Your task to perform on an android device: choose inbox layout in the gmail app Image 0: 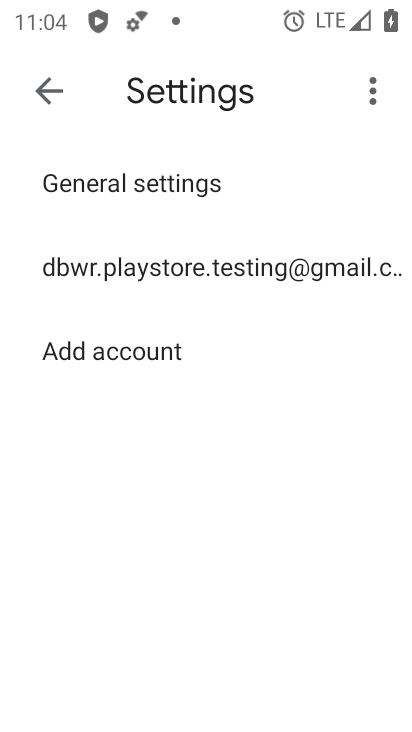
Step 0: click (48, 94)
Your task to perform on an android device: choose inbox layout in the gmail app Image 1: 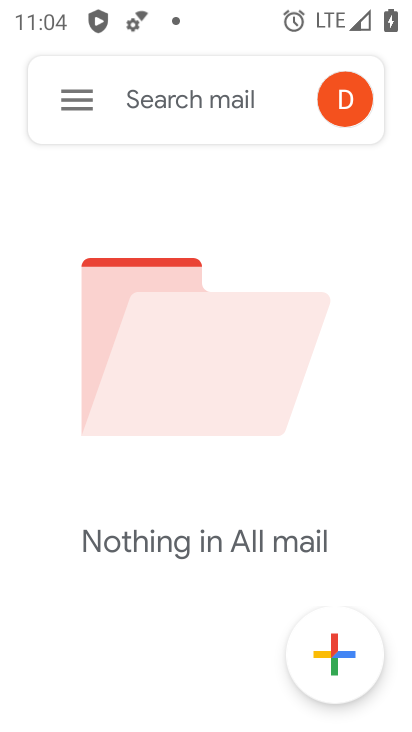
Step 1: press back button
Your task to perform on an android device: choose inbox layout in the gmail app Image 2: 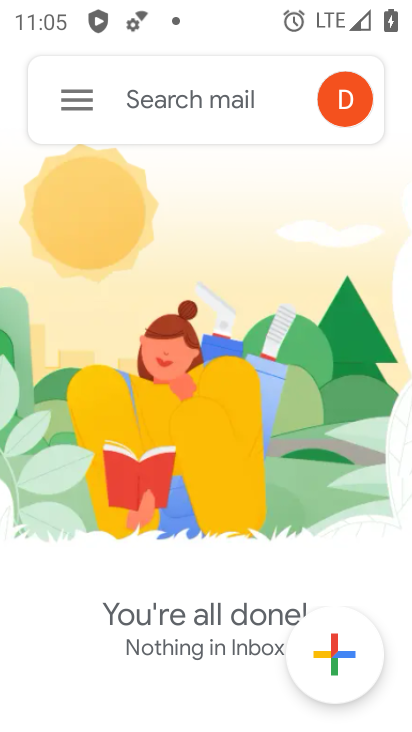
Step 2: click (86, 99)
Your task to perform on an android device: choose inbox layout in the gmail app Image 3: 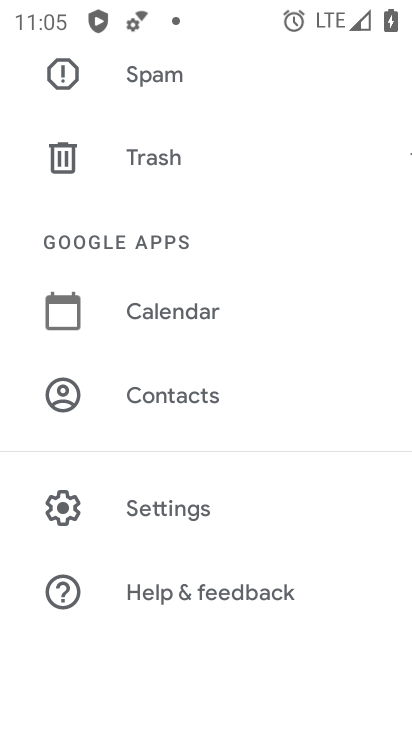
Step 3: click (168, 506)
Your task to perform on an android device: choose inbox layout in the gmail app Image 4: 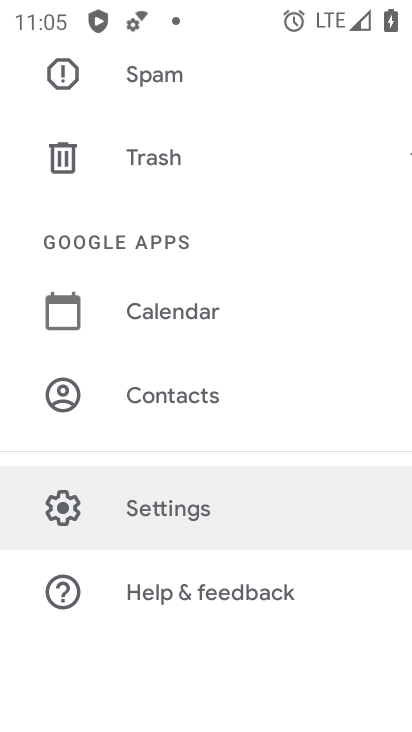
Step 4: click (168, 506)
Your task to perform on an android device: choose inbox layout in the gmail app Image 5: 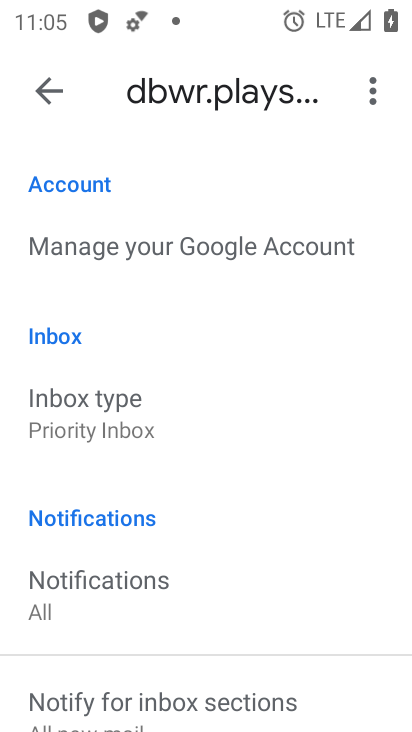
Step 5: drag from (146, 523) to (152, 204)
Your task to perform on an android device: choose inbox layout in the gmail app Image 6: 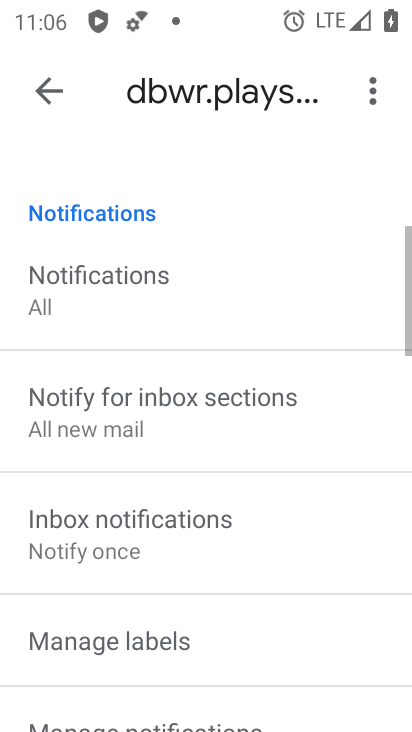
Step 6: drag from (152, 451) to (180, 182)
Your task to perform on an android device: choose inbox layout in the gmail app Image 7: 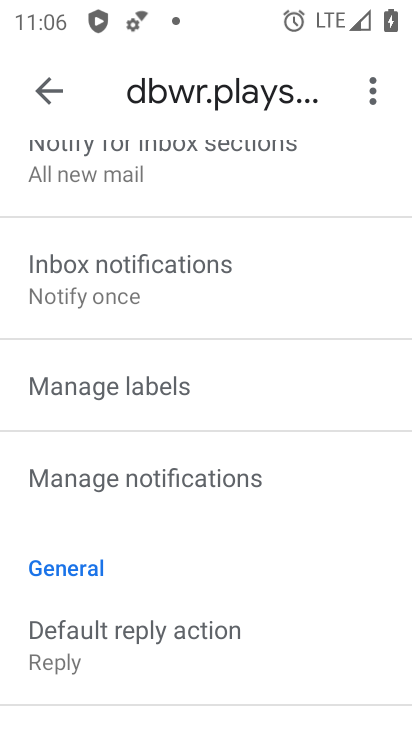
Step 7: drag from (132, 306) to (140, 553)
Your task to perform on an android device: choose inbox layout in the gmail app Image 8: 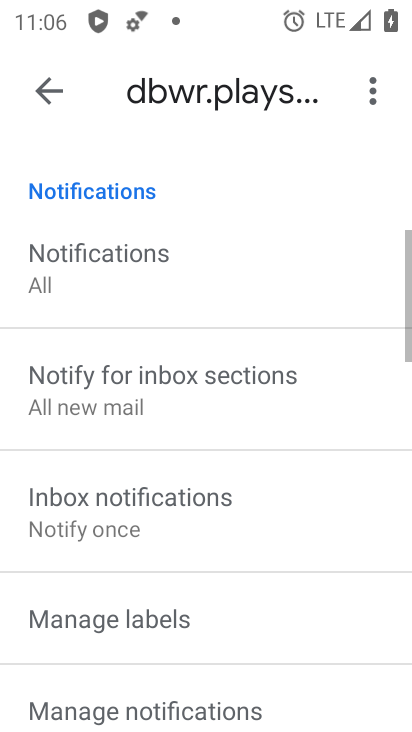
Step 8: drag from (135, 281) to (177, 564)
Your task to perform on an android device: choose inbox layout in the gmail app Image 9: 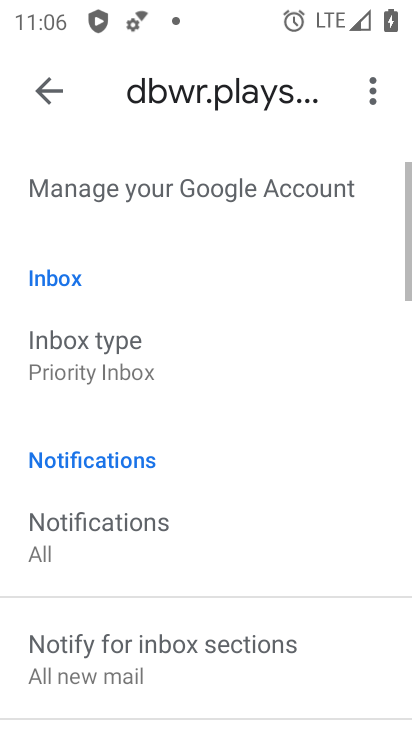
Step 9: drag from (179, 290) to (214, 503)
Your task to perform on an android device: choose inbox layout in the gmail app Image 10: 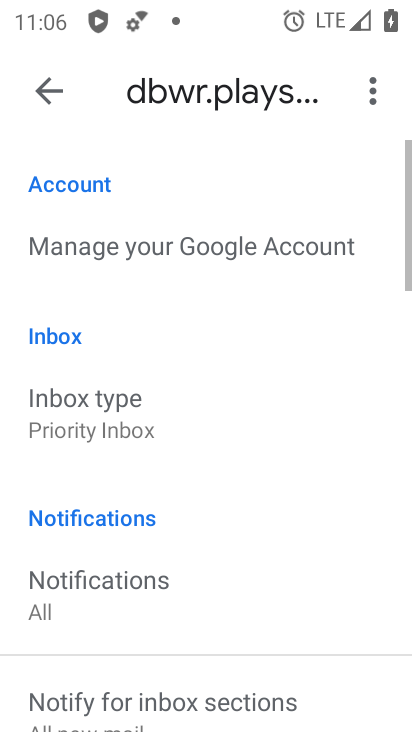
Step 10: drag from (138, 369) to (133, 513)
Your task to perform on an android device: choose inbox layout in the gmail app Image 11: 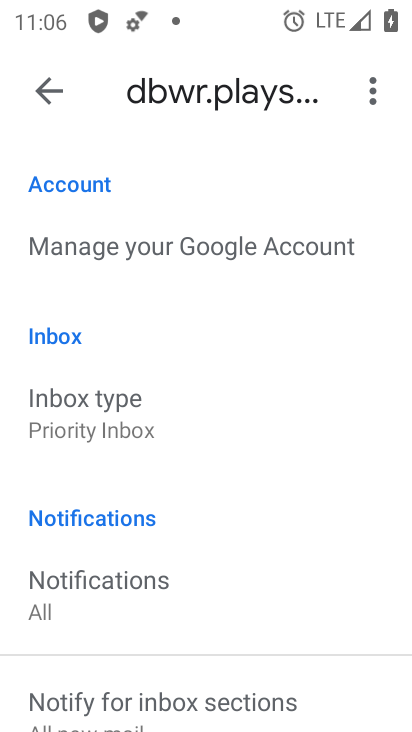
Step 11: click (97, 424)
Your task to perform on an android device: choose inbox layout in the gmail app Image 12: 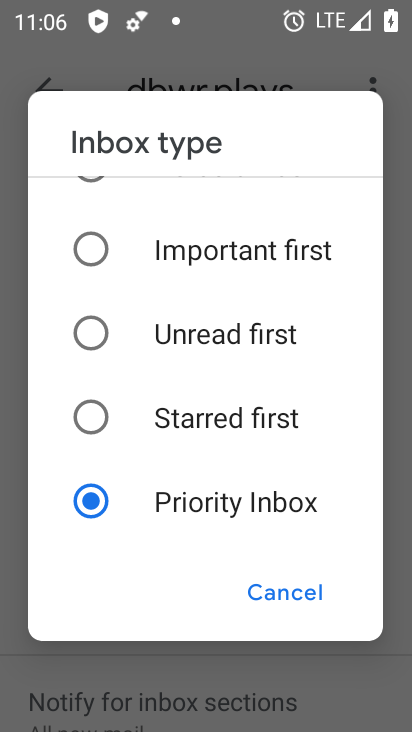
Step 12: drag from (141, 278) to (145, 546)
Your task to perform on an android device: choose inbox layout in the gmail app Image 13: 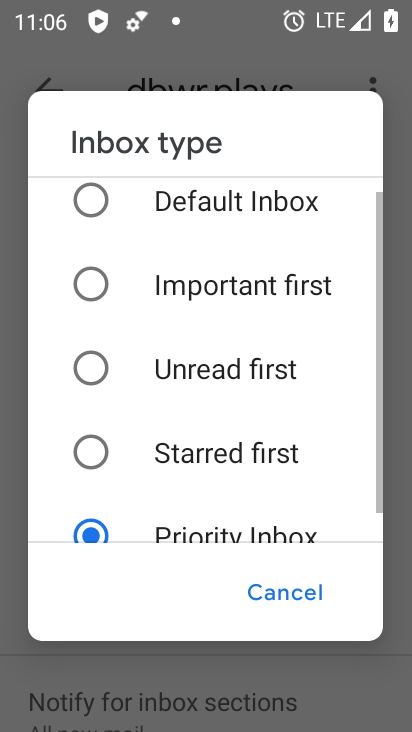
Step 13: drag from (120, 319) to (137, 450)
Your task to perform on an android device: choose inbox layout in the gmail app Image 14: 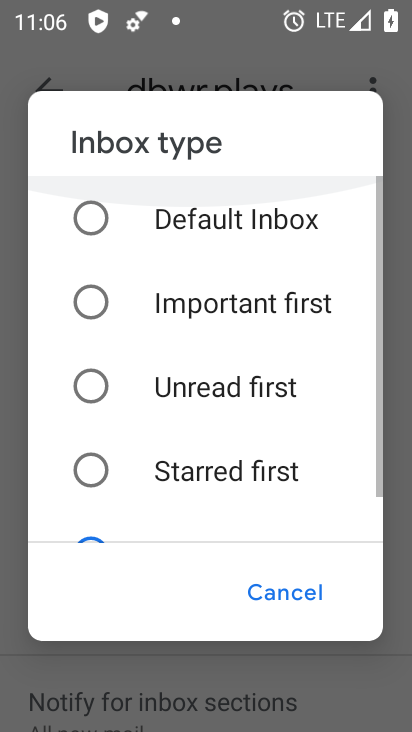
Step 14: click (116, 524)
Your task to perform on an android device: choose inbox layout in the gmail app Image 15: 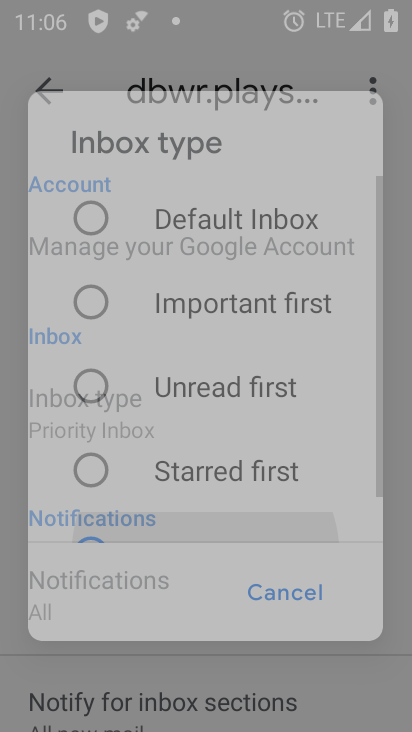
Step 15: drag from (131, 311) to (139, 533)
Your task to perform on an android device: choose inbox layout in the gmail app Image 16: 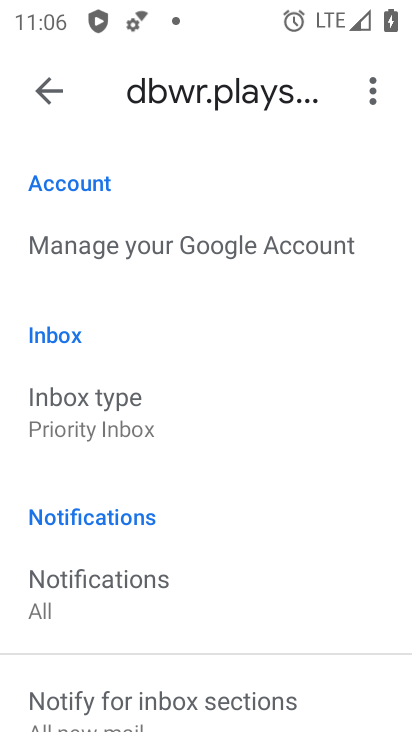
Step 16: click (91, 410)
Your task to perform on an android device: choose inbox layout in the gmail app Image 17: 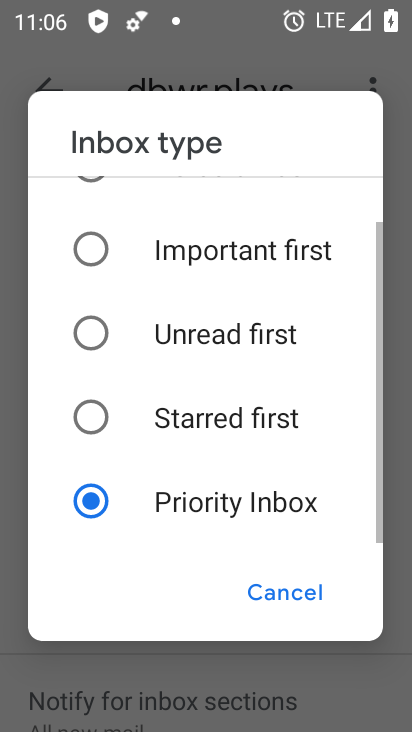
Step 17: drag from (154, 322) to (168, 473)
Your task to perform on an android device: choose inbox layout in the gmail app Image 18: 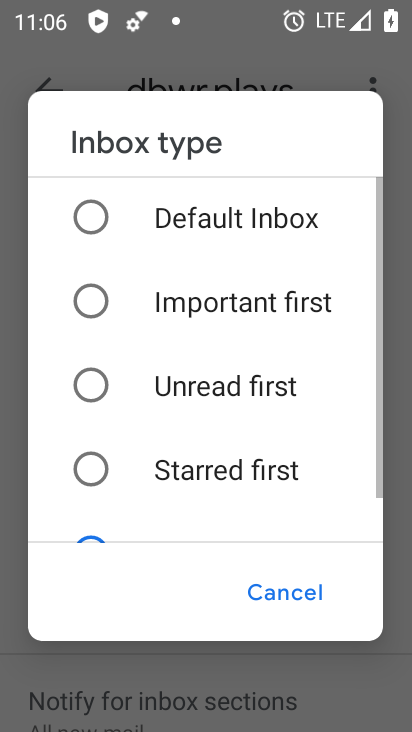
Step 18: drag from (116, 293) to (155, 441)
Your task to perform on an android device: choose inbox layout in the gmail app Image 19: 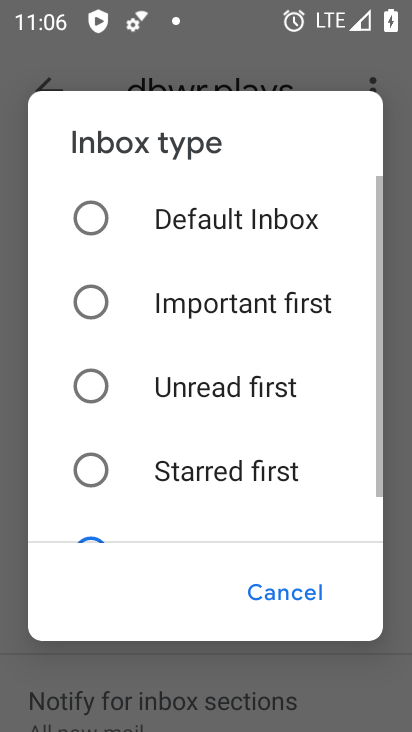
Step 19: drag from (146, 317) to (160, 534)
Your task to perform on an android device: choose inbox layout in the gmail app Image 20: 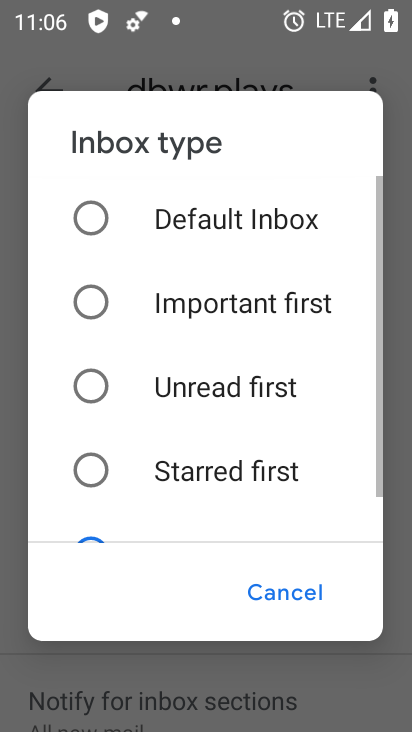
Step 20: click (85, 213)
Your task to perform on an android device: choose inbox layout in the gmail app Image 21: 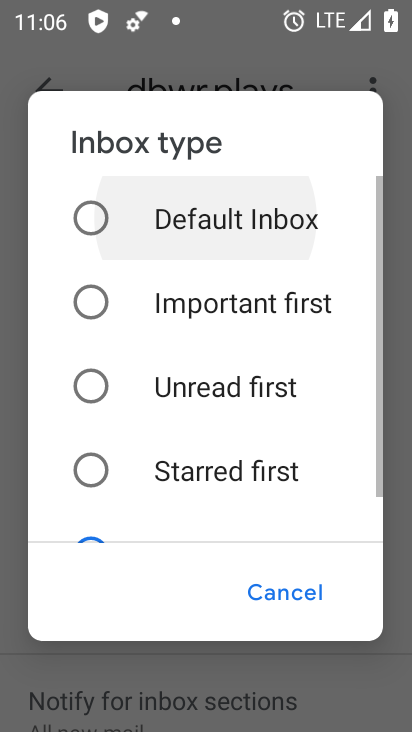
Step 21: click (87, 215)
Your task to perform on an android device: choose inbox layout in the gmail app Image 22: 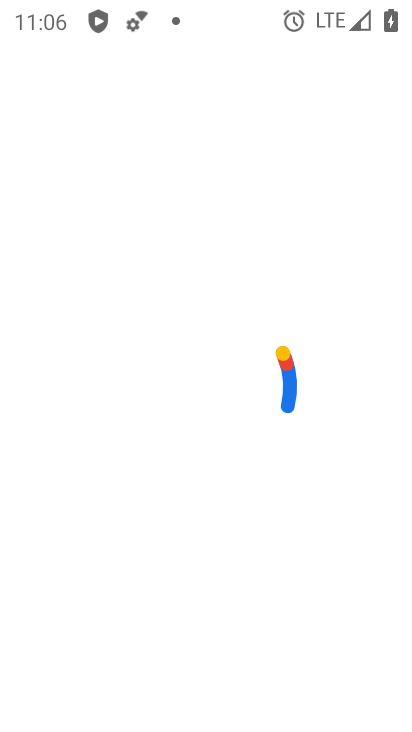
Step 22: task complete